Your task to perform on an android device: open app "Google Drive" (install if not already installed) Image 0: 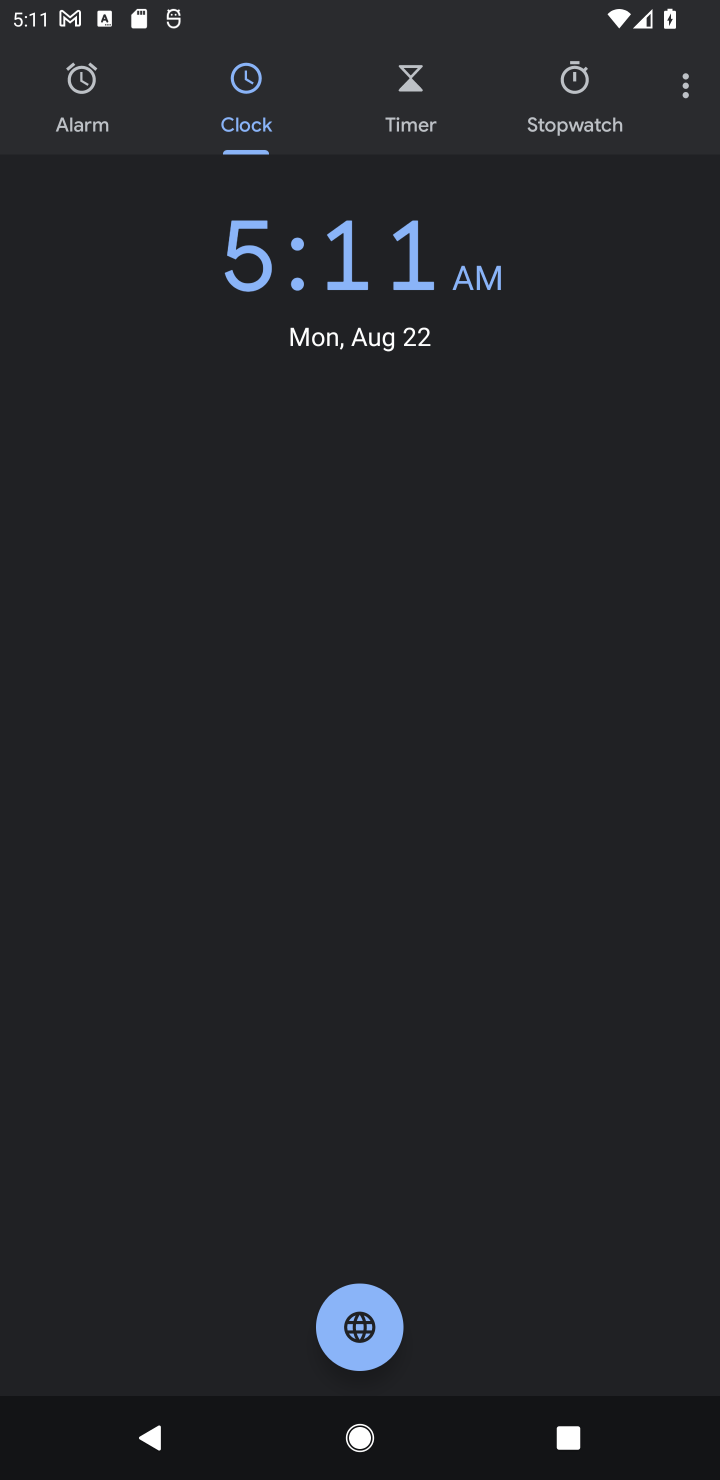
Step 0: press home button
Your task to perform on an android device: open app "Google Drive" (install if not already installed) Image 1: 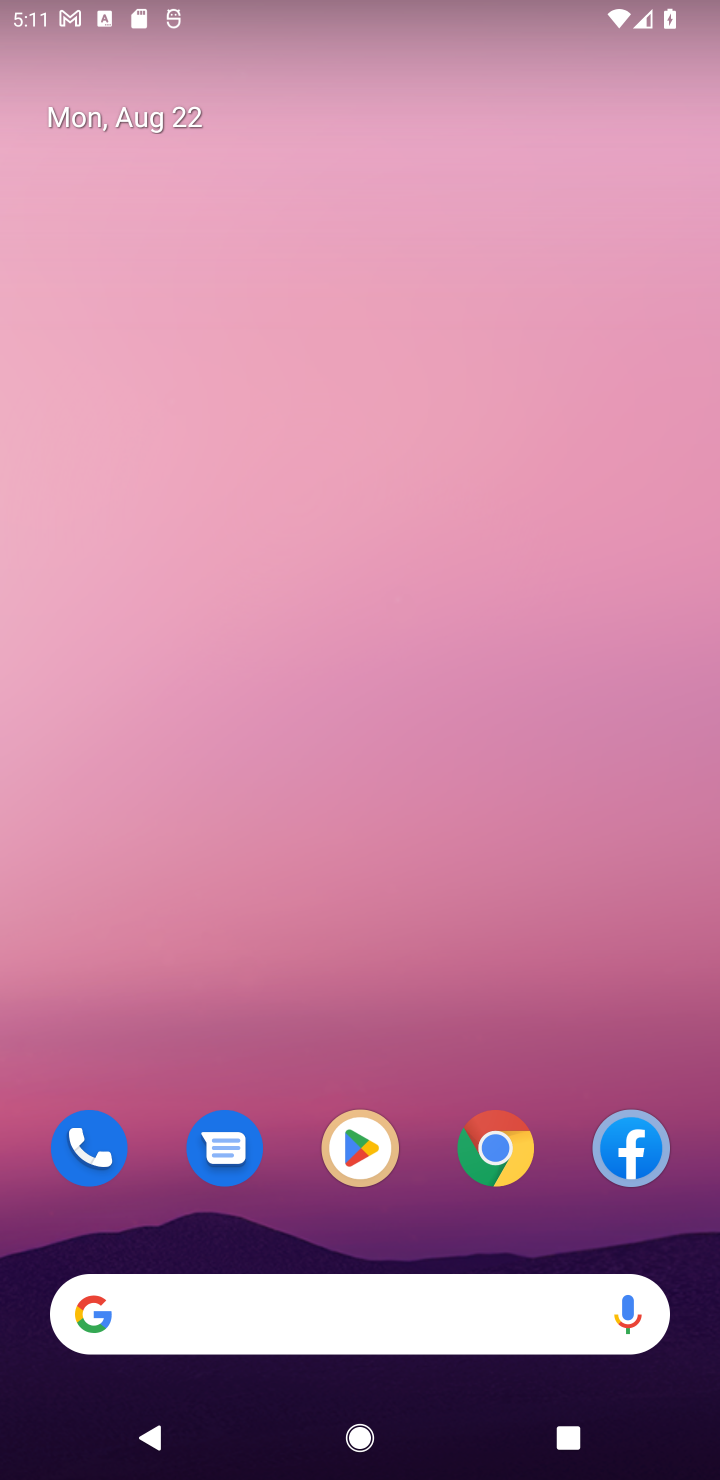
Step 1: click (369, 1143)
Your task to perform on an android device: open app "Google Drive" (install if not already installed) Image 2: 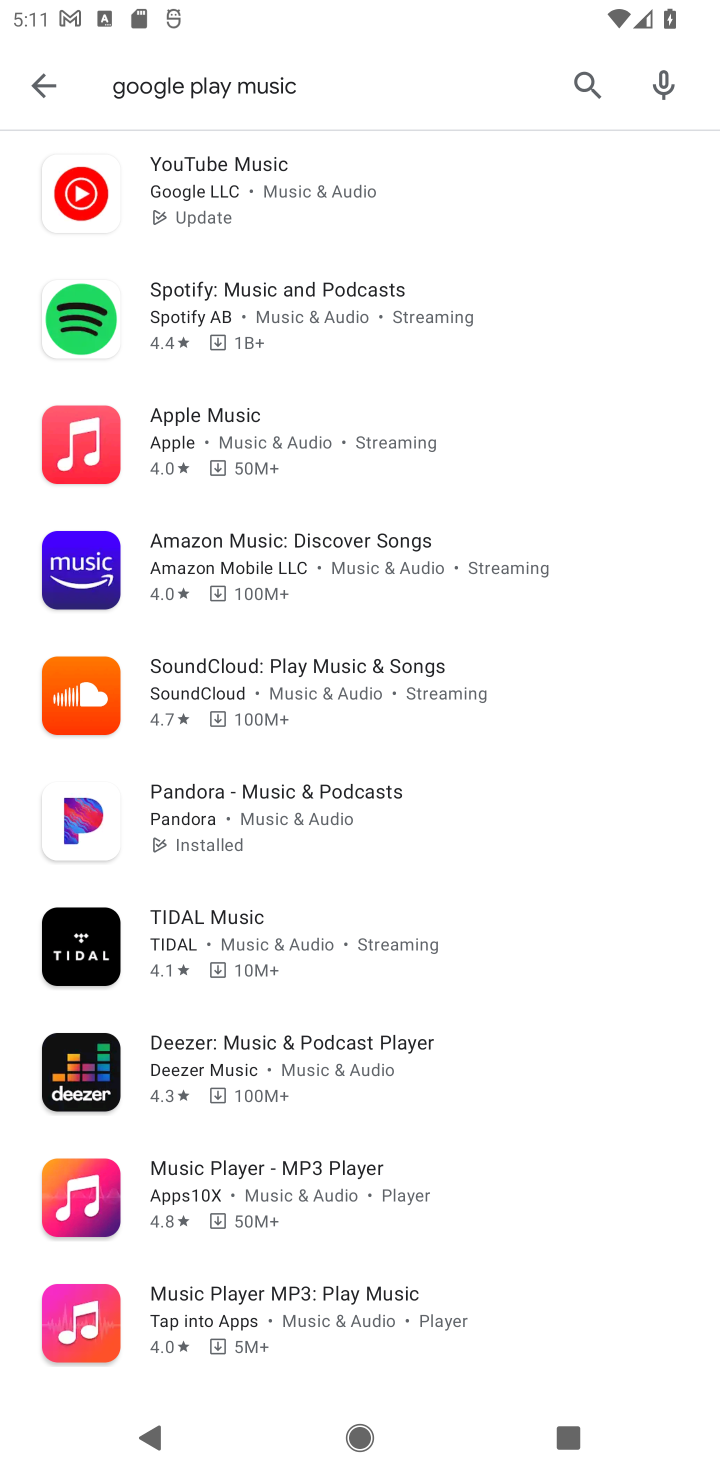
Step 2: click (593, 84)
Your task to perform on an android device: open app "Google Drive" (install if not already installed) Image 3: 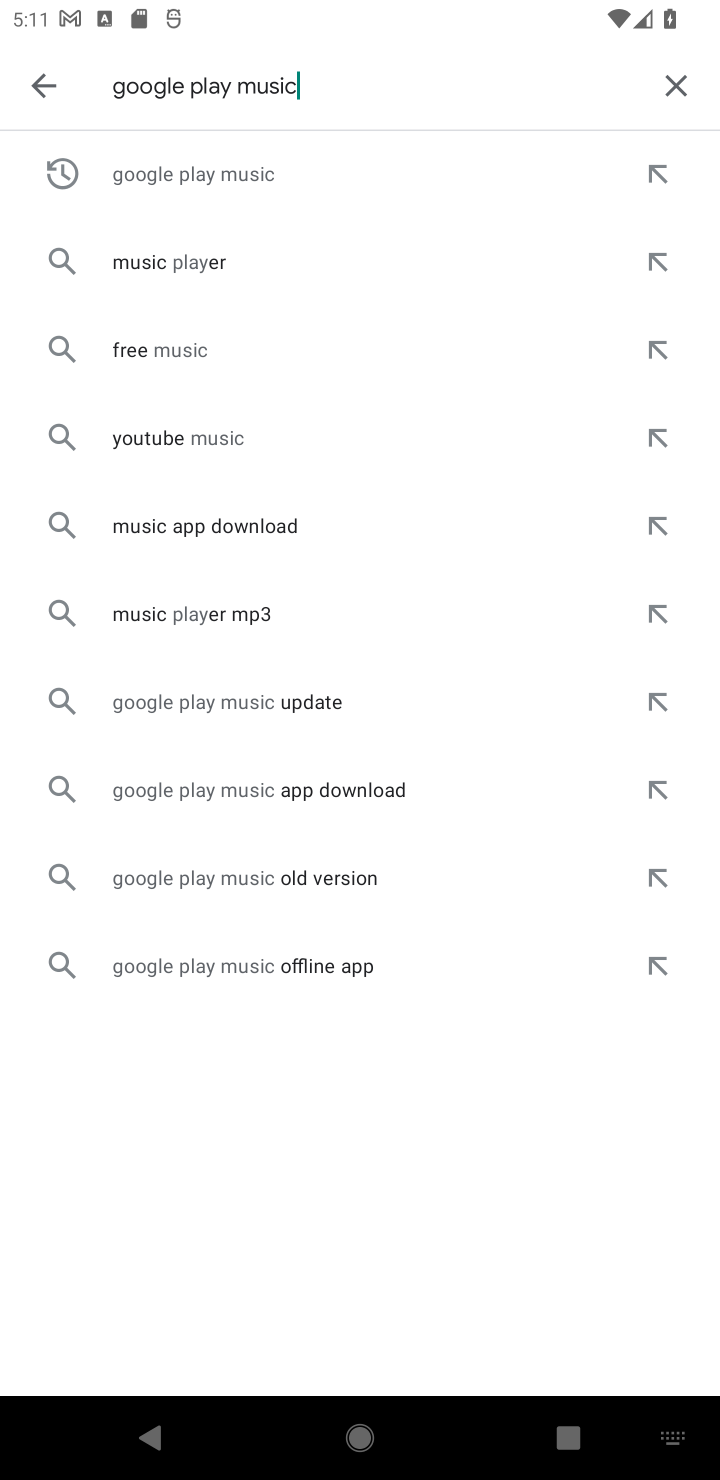
Step 3: click (681, 82)
Your task to perform on an android device: open app "Google Drive" (install if not already installed) Image 4: 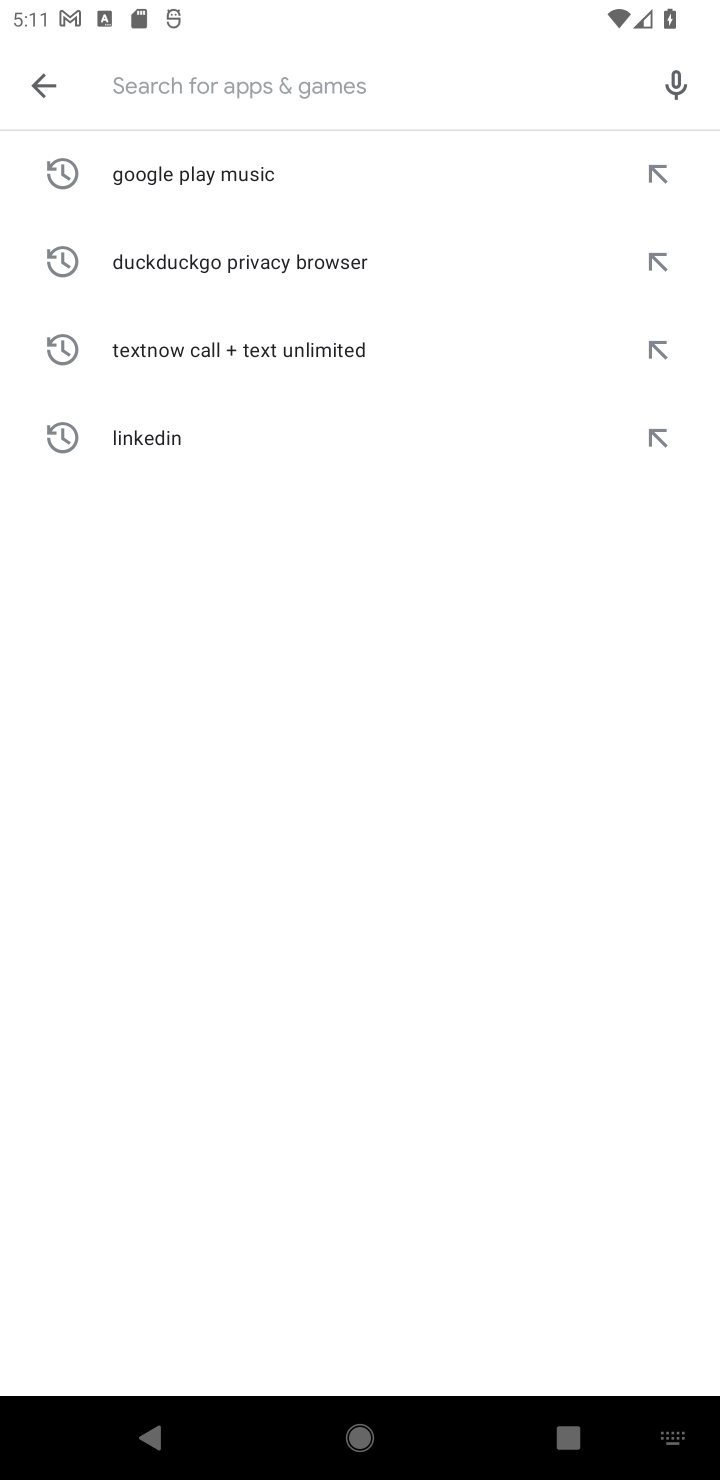
Step 4: type "Google Drive"
Your task to perform on an android device: open app "Google Drive" (install if not already installed) Image 5: 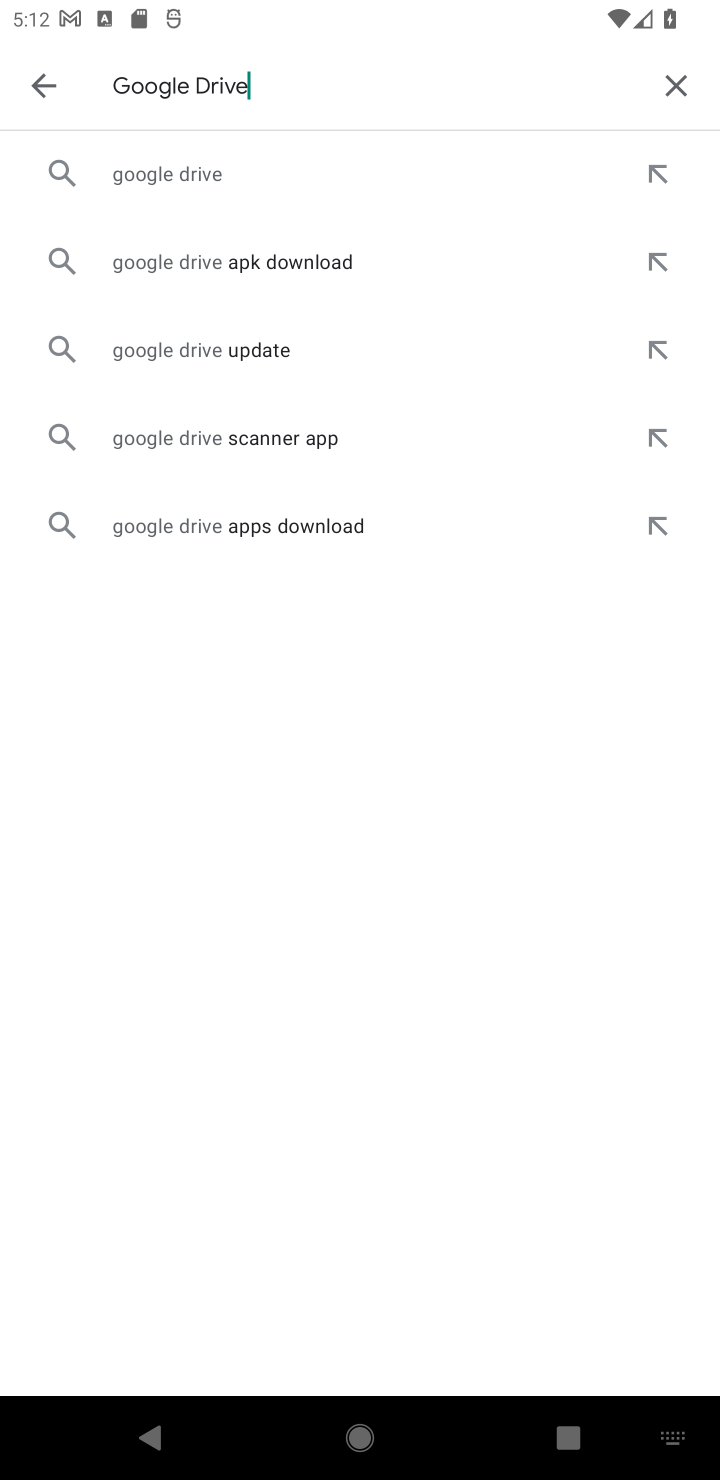
Step 5: click (181, 171)
Your task to perform on an android device: open app "Google Drive" (install if not already installed) Image 6: 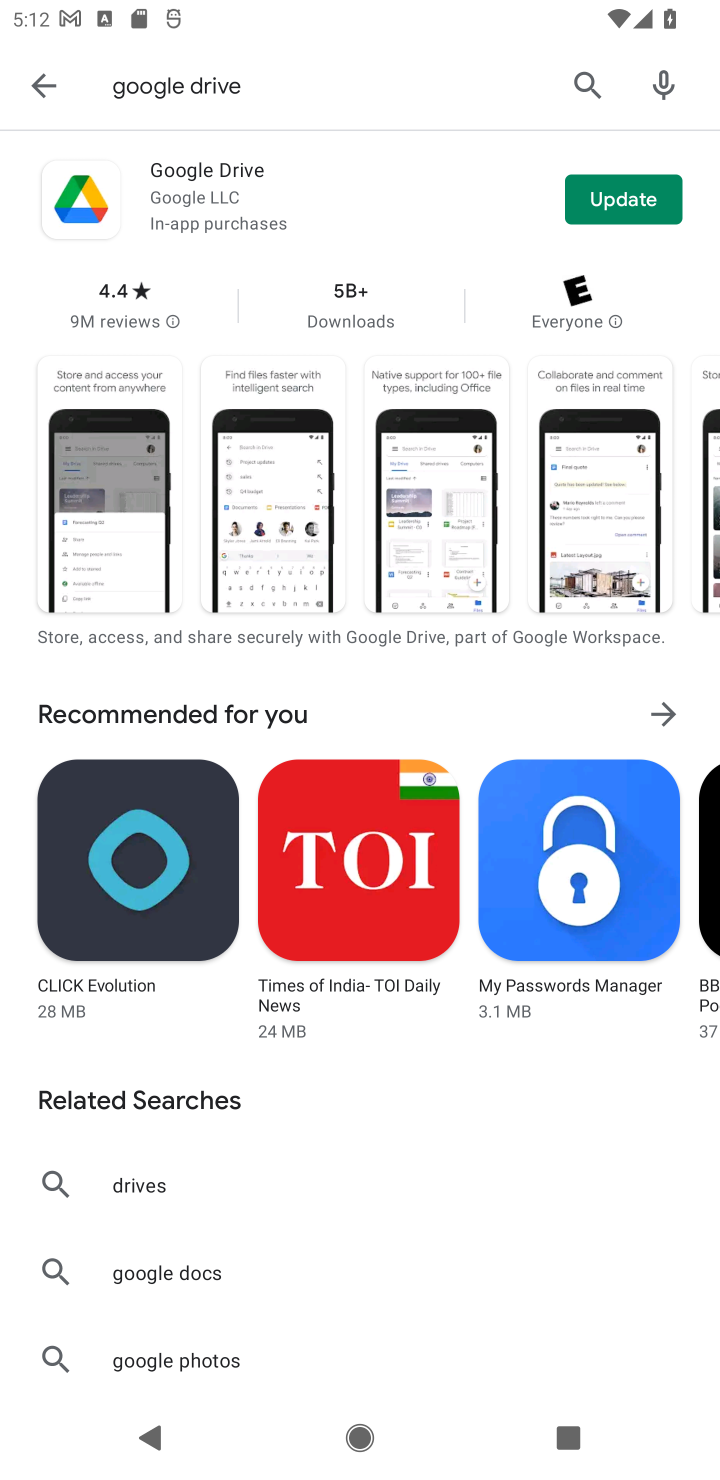
Step 6: click (222, 190)
Your task to perform on an android device: open app "Google Drive" (install if not already installed) Image 7: 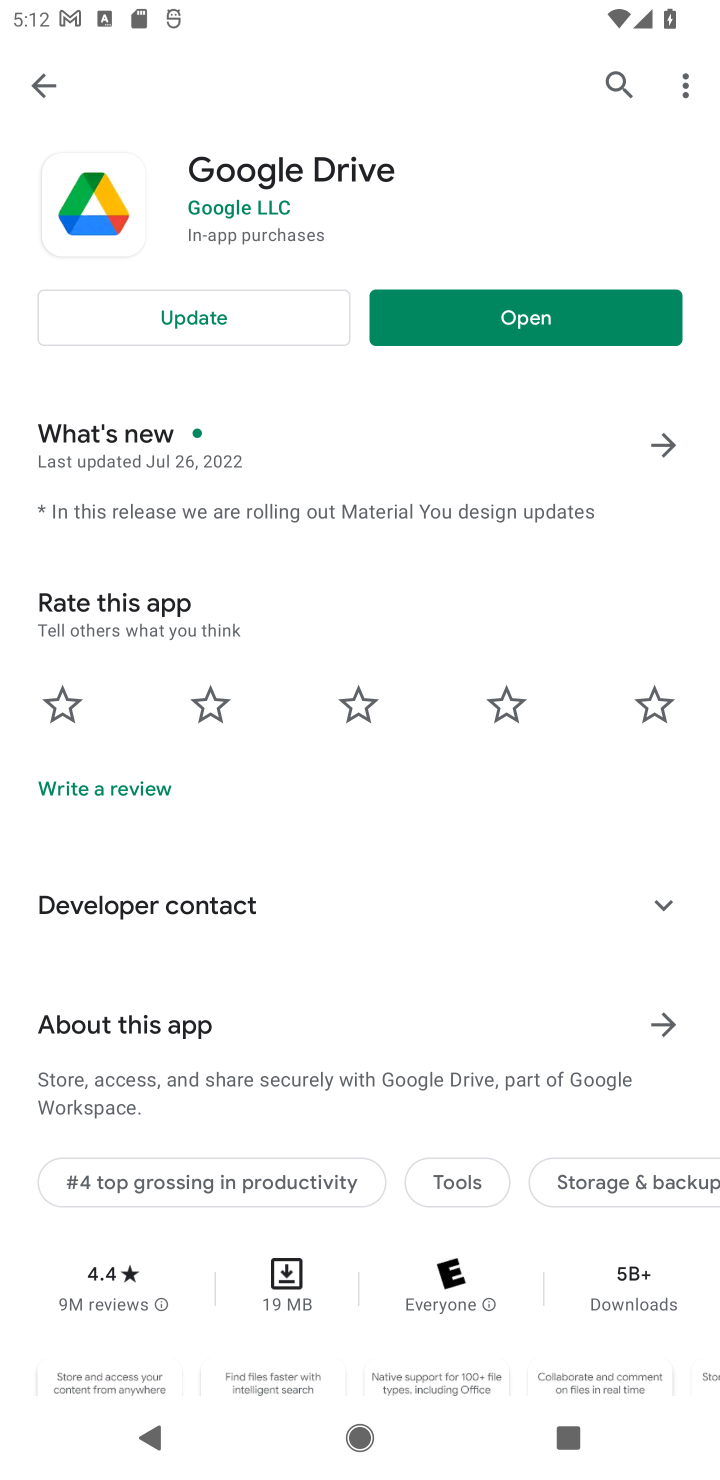
Step 7: click (510, 328)
Your task to perform on an android device: open app "Google Drive" (install if not already installed) Image 8: 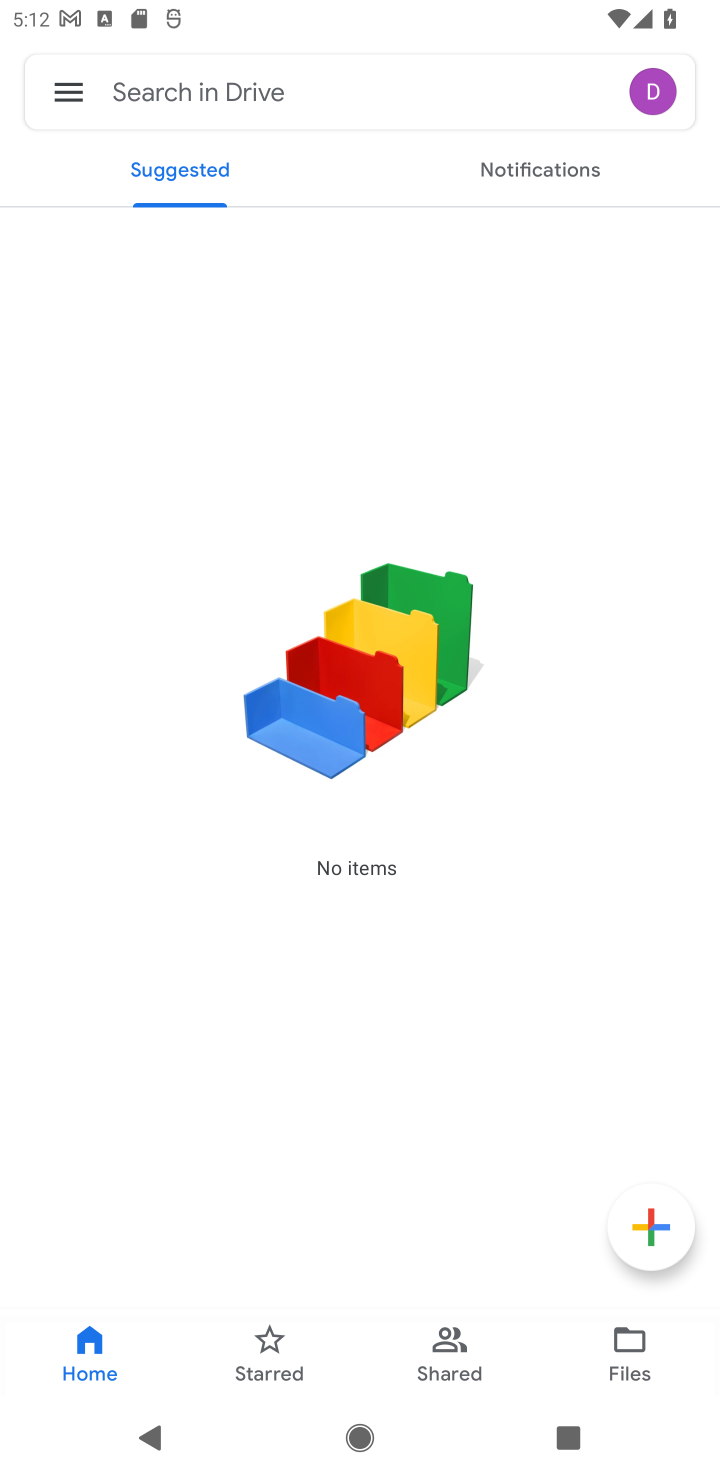
Step 8: task complete